Your task to perform on an android device: turn notification dots on Image 0: 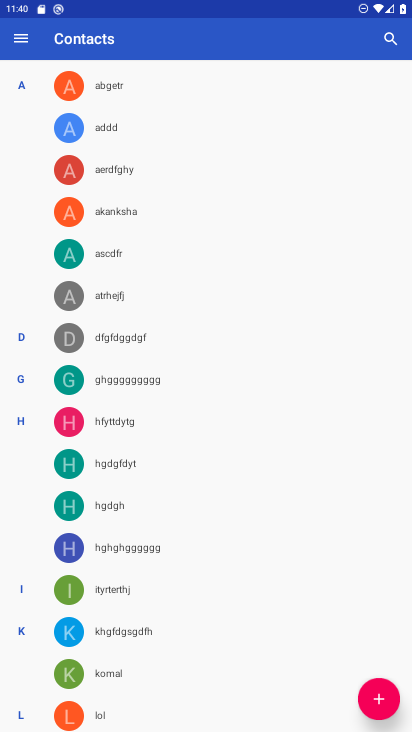
Step 0: press home button
Your task to perform on an android device: turn notification dots on Image 1: 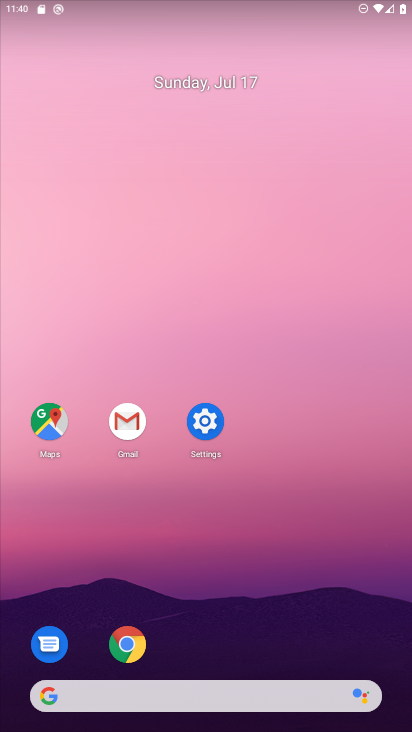
Step 1: drag from (400, 690) to (365, 205)
Your task to perform on an android device: turn notification dots on Image 2: 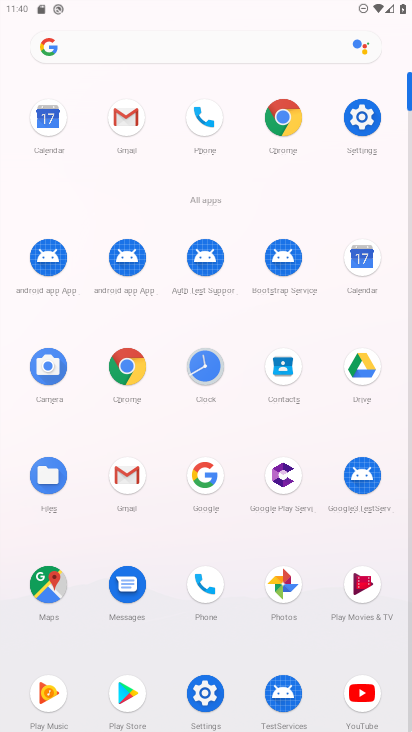
Step 2: click (366, 99)
Your task to perform on an android device: turn notification dots on Image 3: 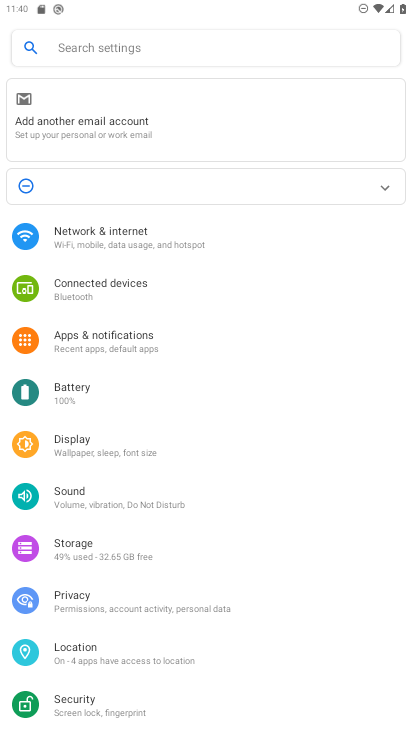
Step 3: click (116, 246)
Your task to perform on an android device: turn notification dots on Image 4: 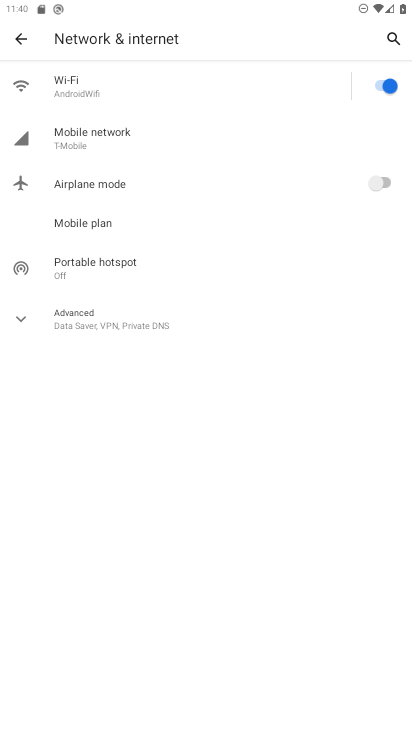
Step 4: press back button
Your task to perform on an android device: turn notification dots on Image 5: 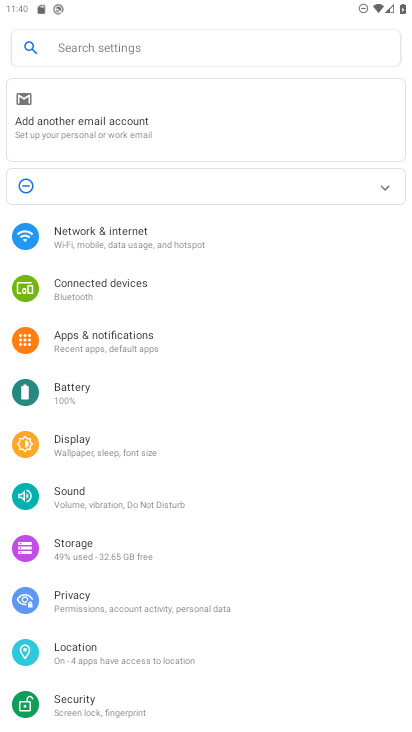
Step 5: click (98, 340)
Your task to perform on an android device: turn notification dots on Image 6: 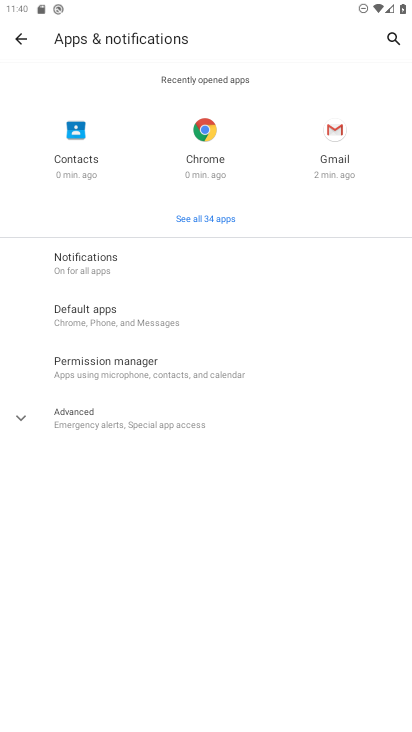
Step 6: click (77, 262)
Your task to perform on an android device: turn notification dots on Image 7: 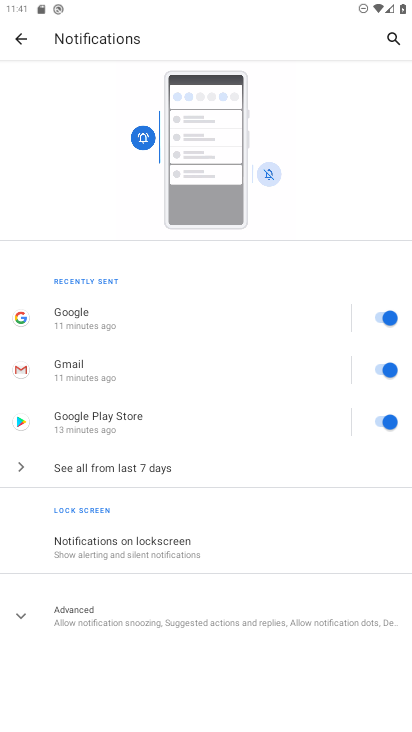
Step 7: click (32, 611)
Your task to perform on an android device: turn notification dots on Image 8: 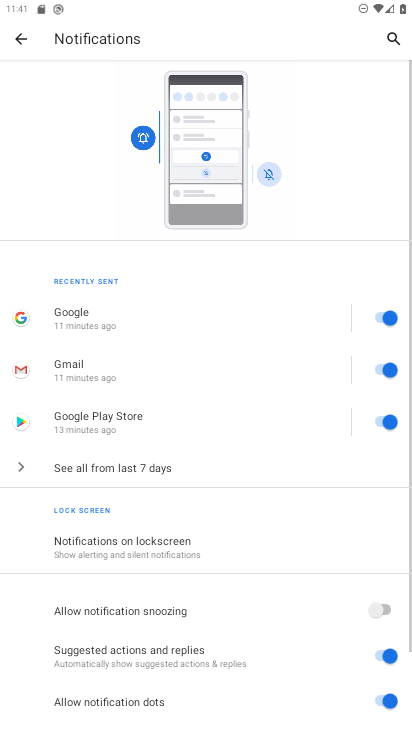
Step 8: task complete